Your task to perform on an android device: turn off data saver in the chrome app Image 0: 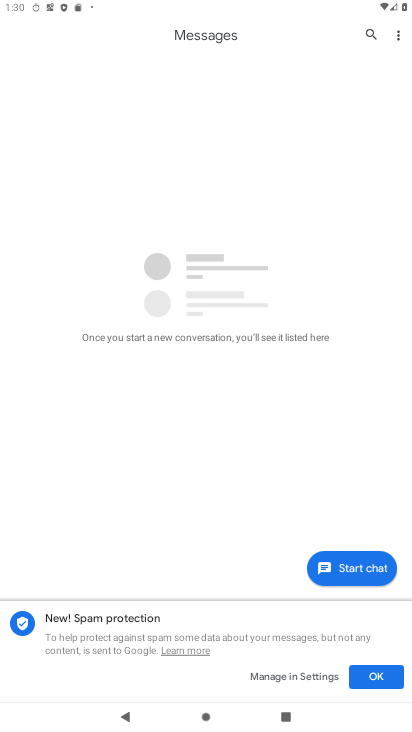
Step 0: press home button
Your task to perform on an android device: turn off data saver in the chrome app Image 1: 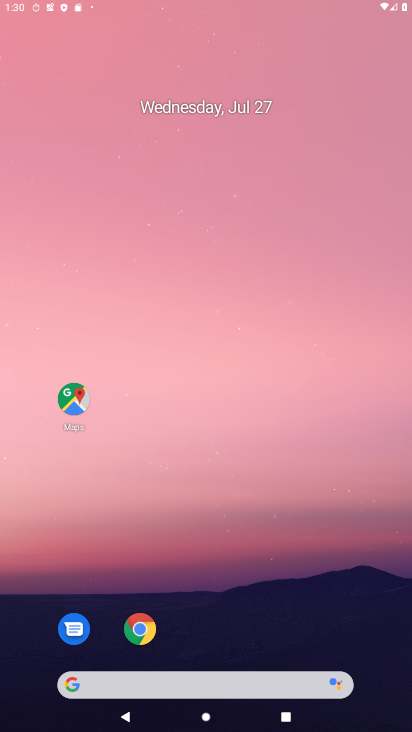
Step 1: drag from (299, 472) to (149, 0)
Your task to perform on an android device: turn off data saver in the chrome app Image 2: 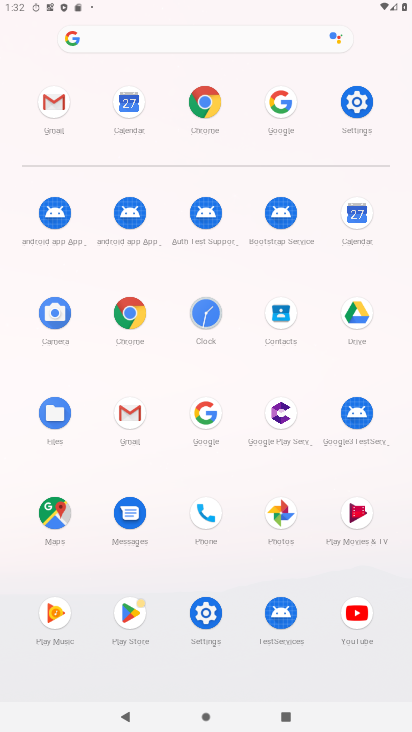
Step 2: click (125, 323)
Your task to perform on an android device: turn off data saver in the chrome app Image 3: 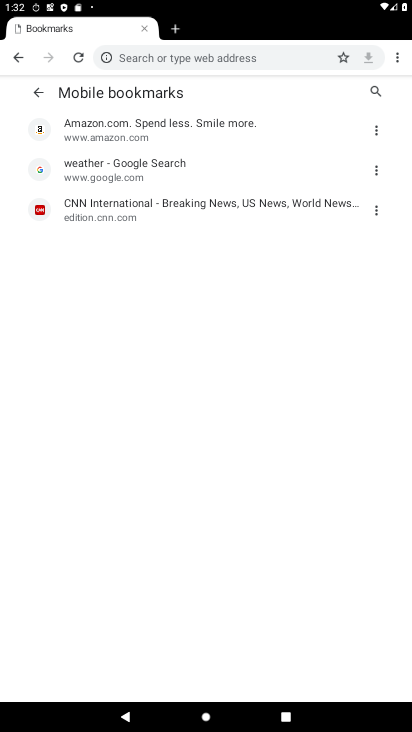
Step 3: click (393, 55)
Your task to perform on an android device: turn off data saver in the chrome app Image 4: 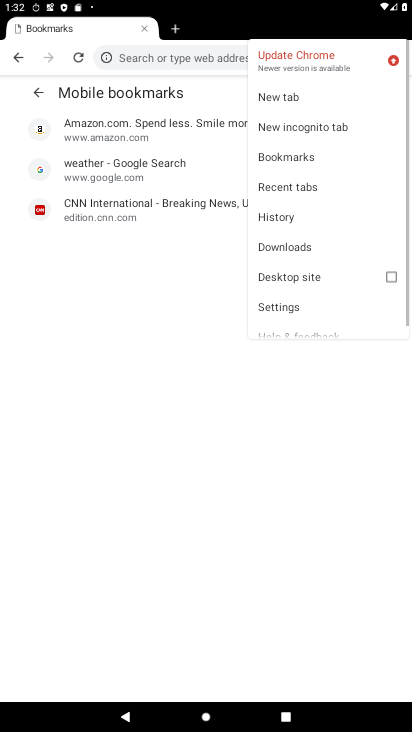
Step 4: click (301, 300)
Your task to perform on an android device: turn off data saver in the chrome app Image 5: 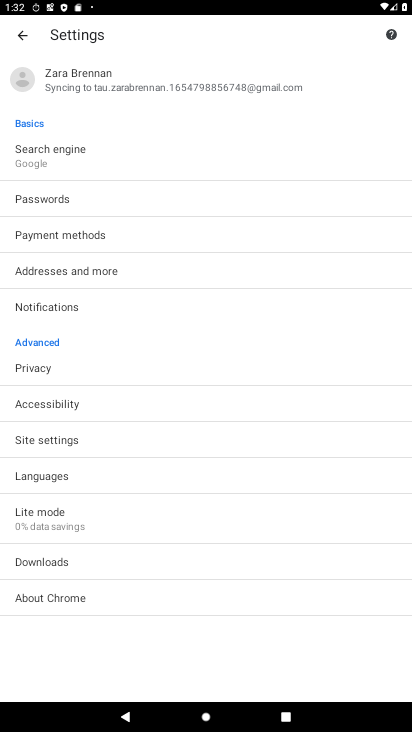
Step 5: click (66, 516)
Your task to perform on an android device: turn off data saver in the chrome app Image 6: 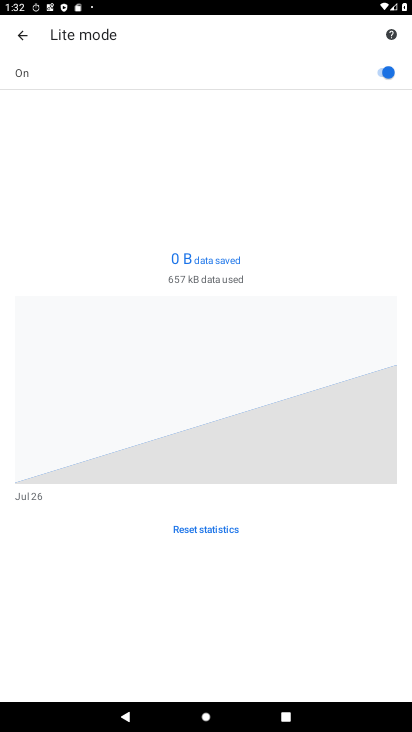
Step 6: click (371, 78)
Your task to perform on an android device: turn off data saver in the chrome app Image 7: 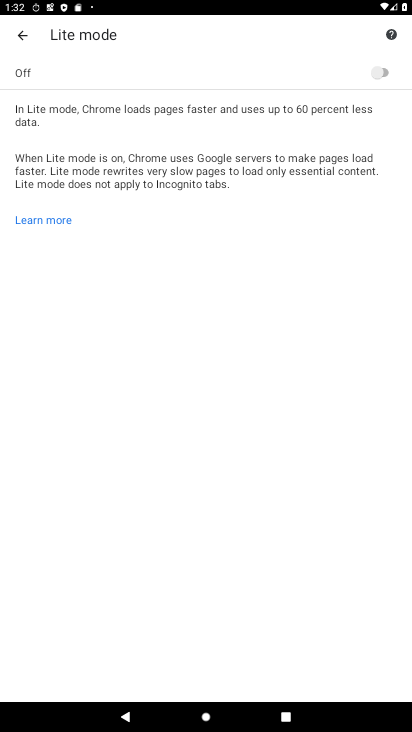
Step 7: task complete